Your task to perform on an android device: uninstall "Microsoft Authenticator" Image 0: 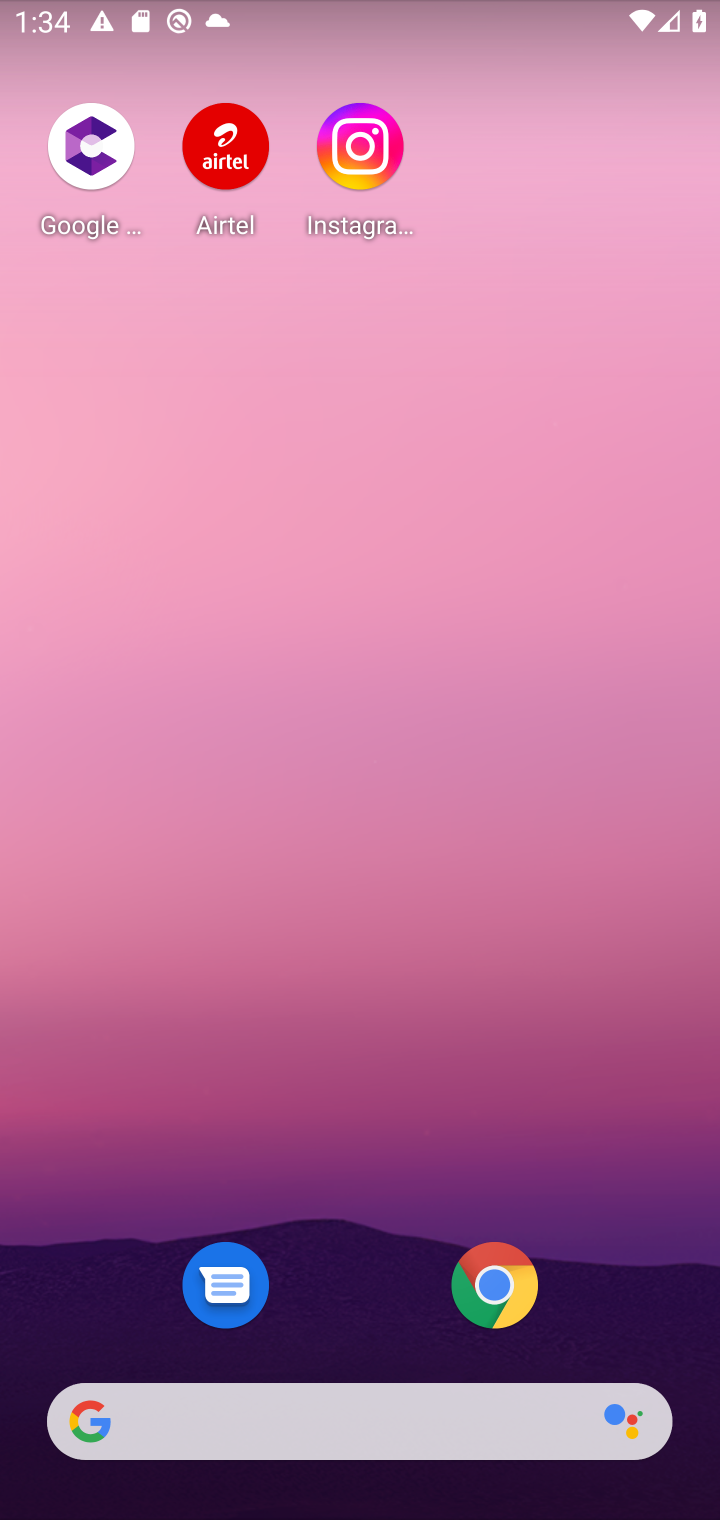
Step 0: drag from (325, 1253) to (316, 183)
Your task to perform on an android device: uninstall "Microsoft Authenticator" Image 1: 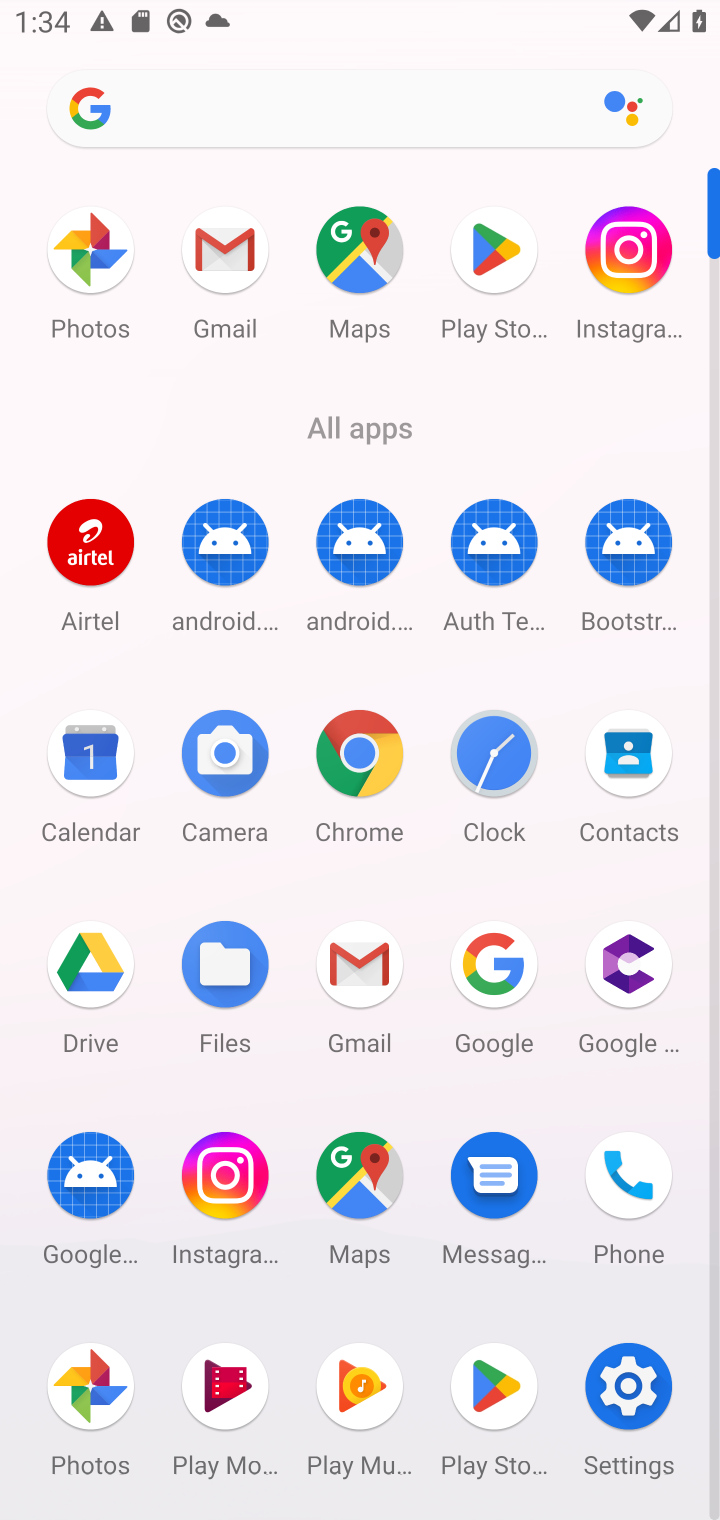
Step 1: click (496, 233)
Your task to perform on an android device: uninstall "Microsoft Authenticator" Image 2: 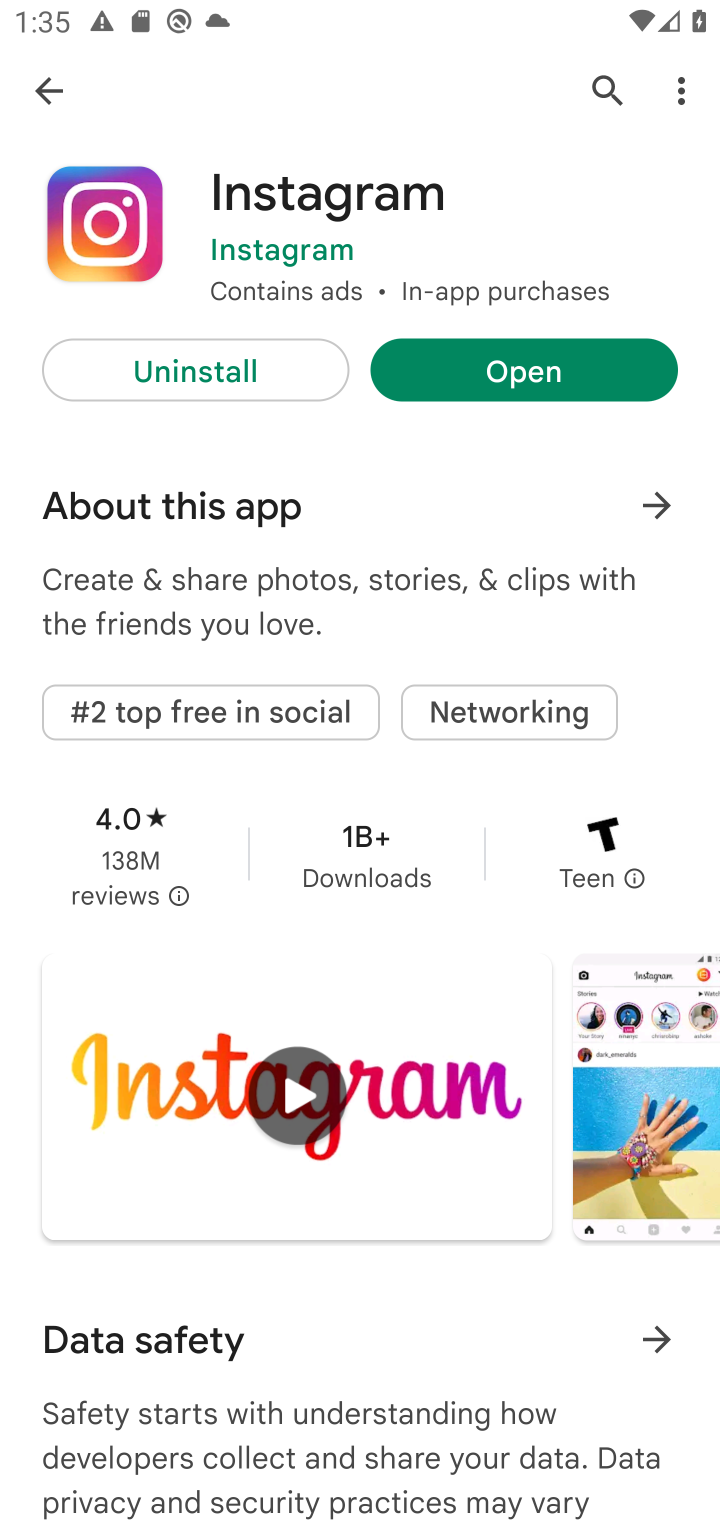
Step 2: click (62, 76)
Your task to perform on an android device: uninstall "Microsoft Authenticator" Image 3: 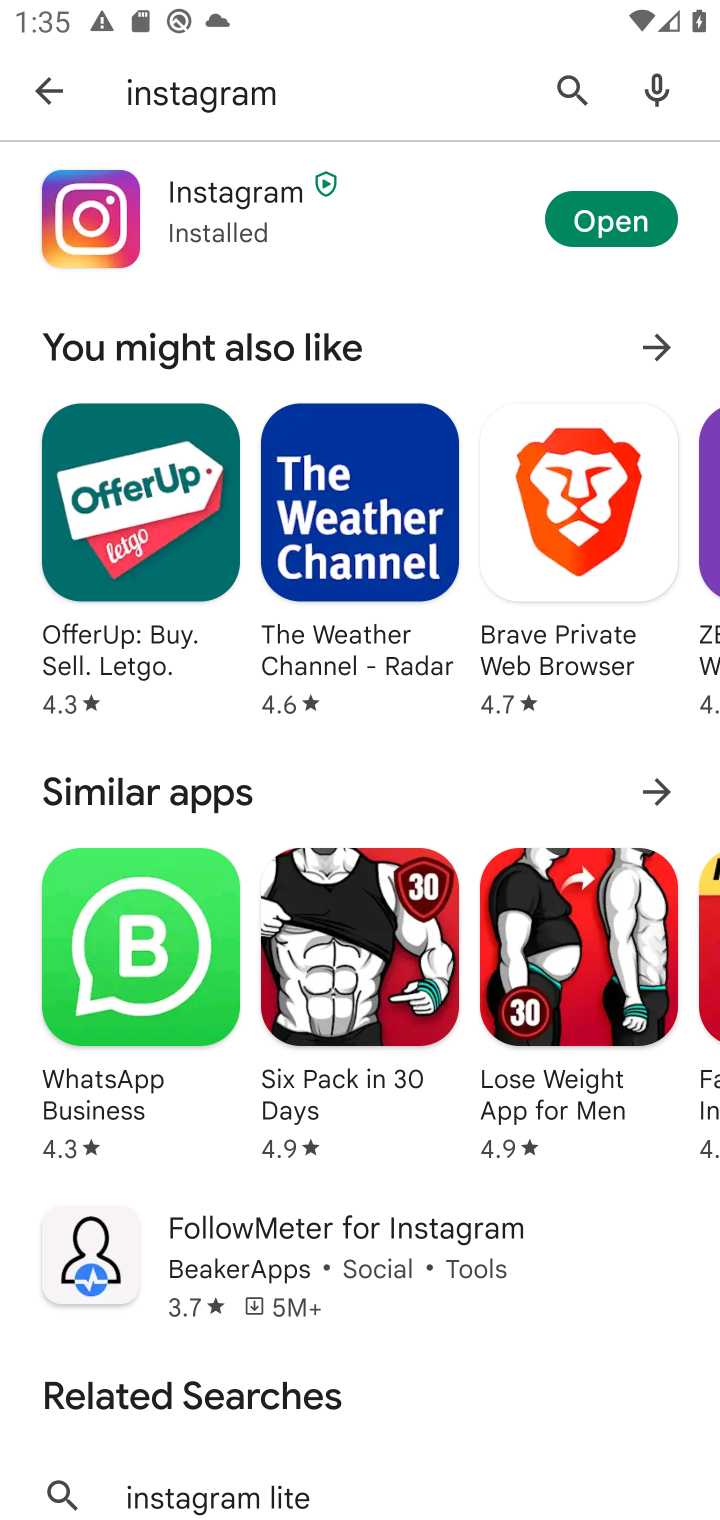
Step 3: click (60, 99)
Your task to perform on an android device: uninstall "Microsoft Authenticator" Image 4: 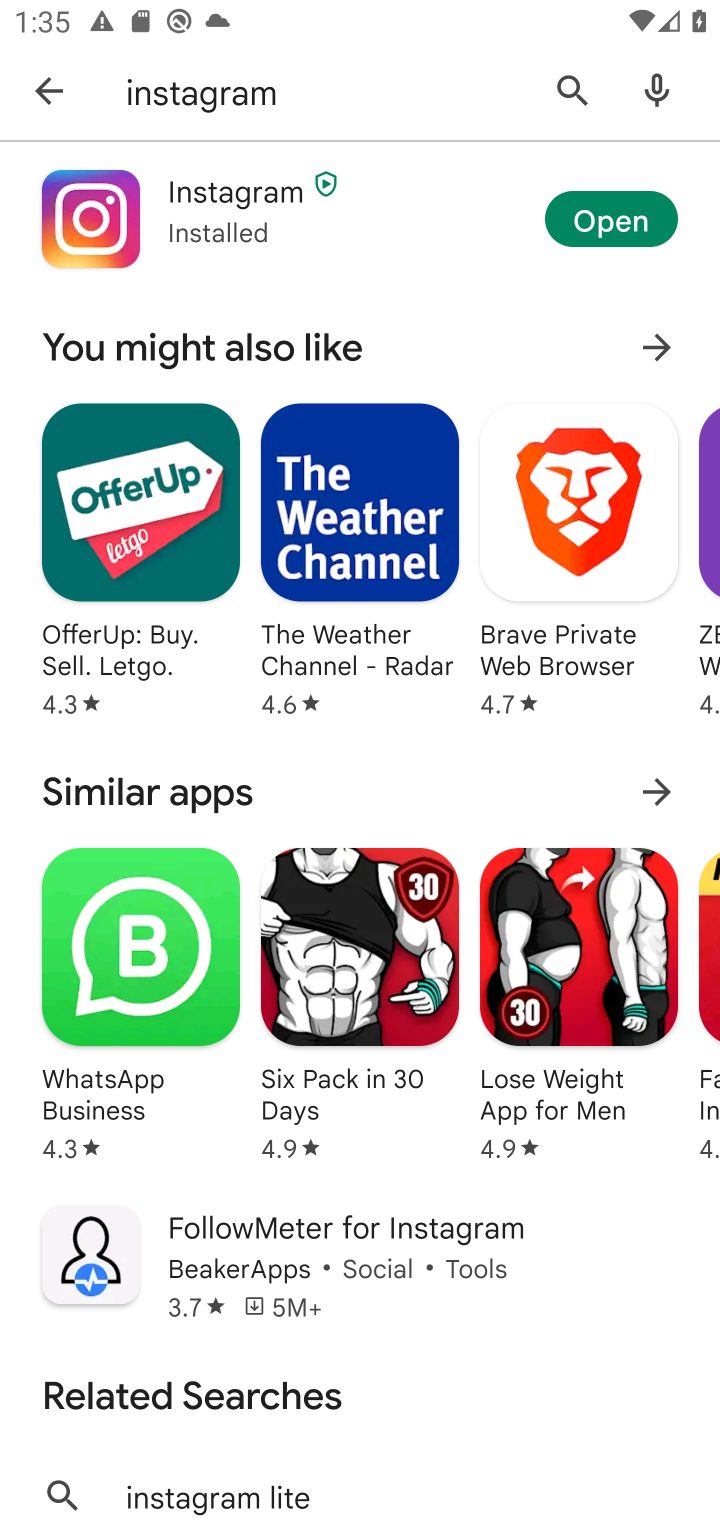
Step 4: click (49, 84)
Your task to perform on an android device: uninstall "Microsoft Authenticator" Image 5: 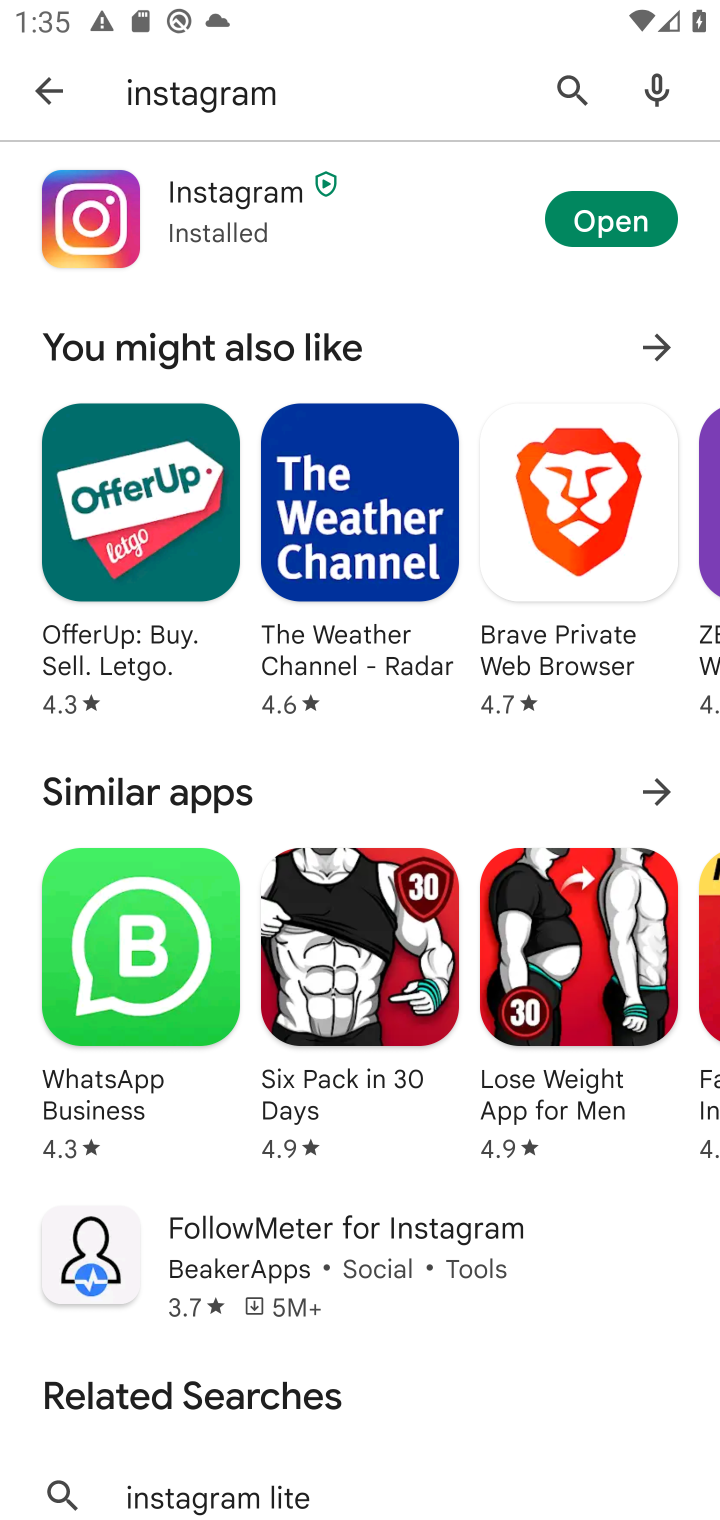
Step 5: click (566, 80)
Your task to perform on an android device: uninstall "Microsoft Authenticator" Image 6: 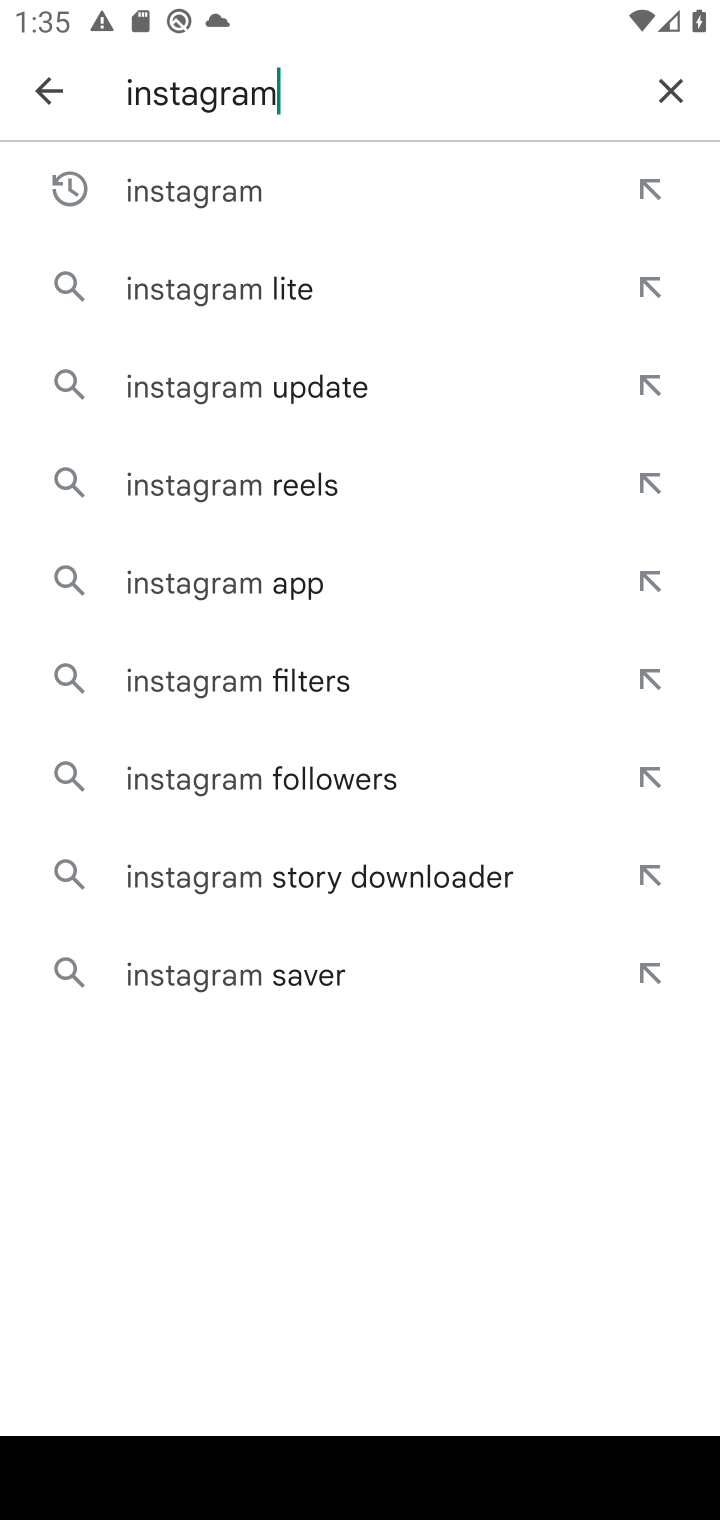
Step 6: click (678, 94)
Your task to perform on an android device: uninstall "Microsoft Authenticator" Image 7: 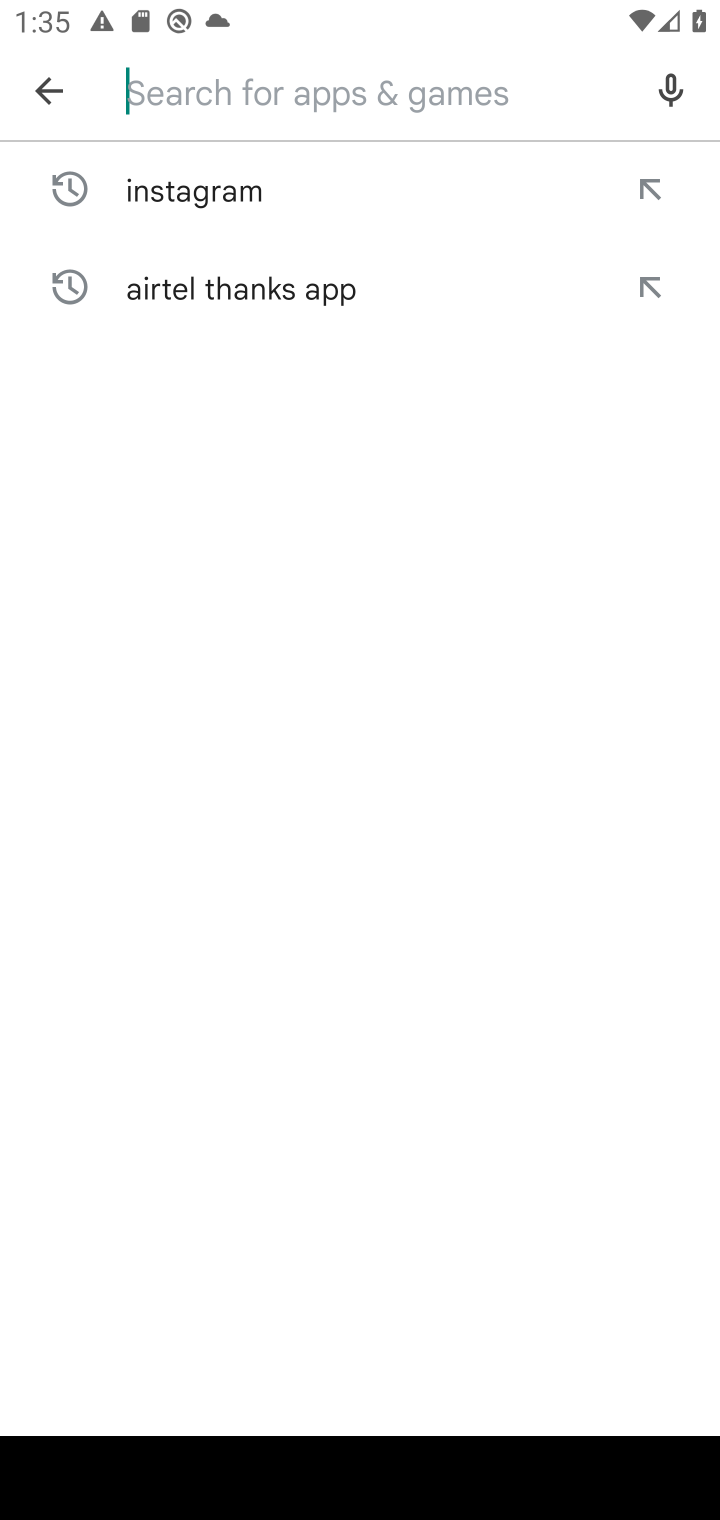
Step 7: type "Microsoft Authenticator"
Your task to perform on an android device: uninstall "Microsoft Authenticator" Image 8: 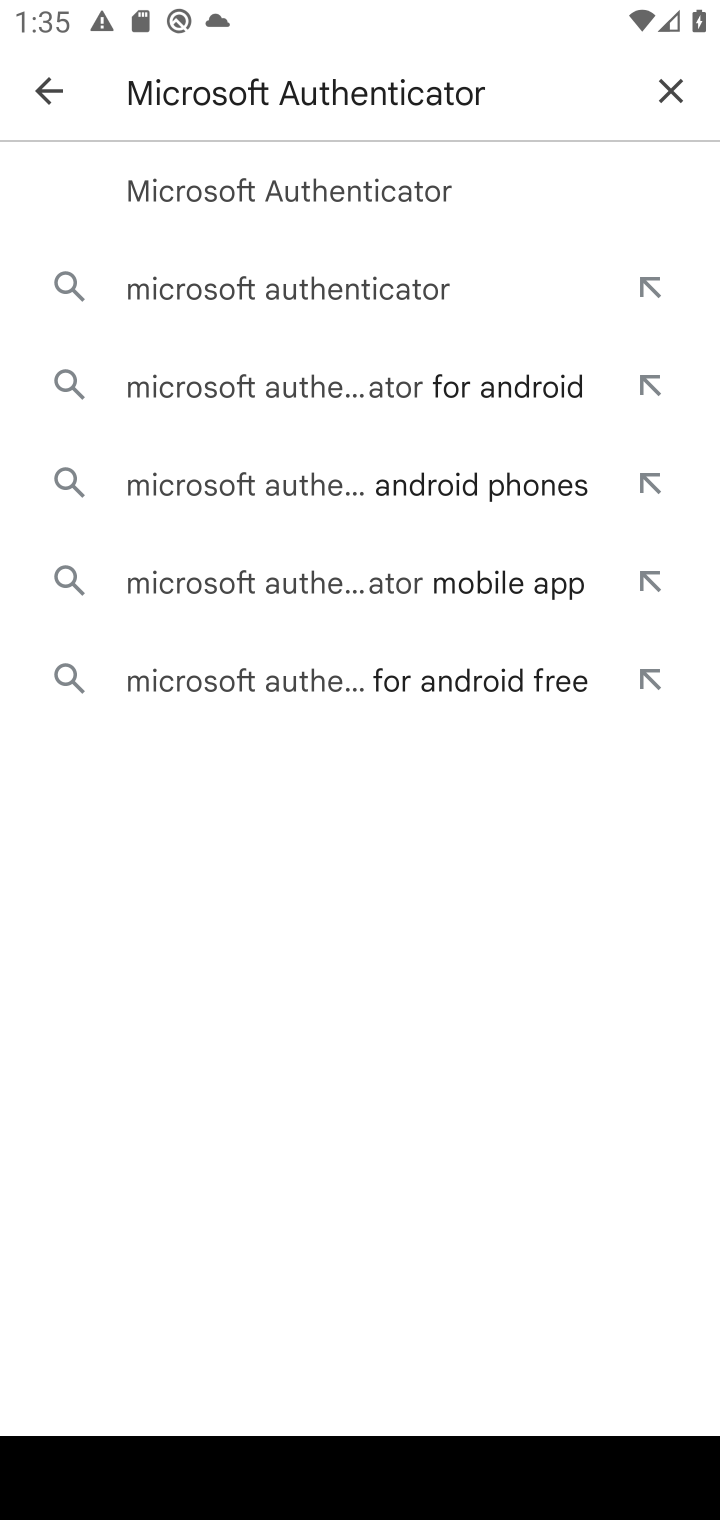
Step 8: click (168, 200)
Your task to perform on an android device: uninstall "Microsoft Authenticator" Image 9: 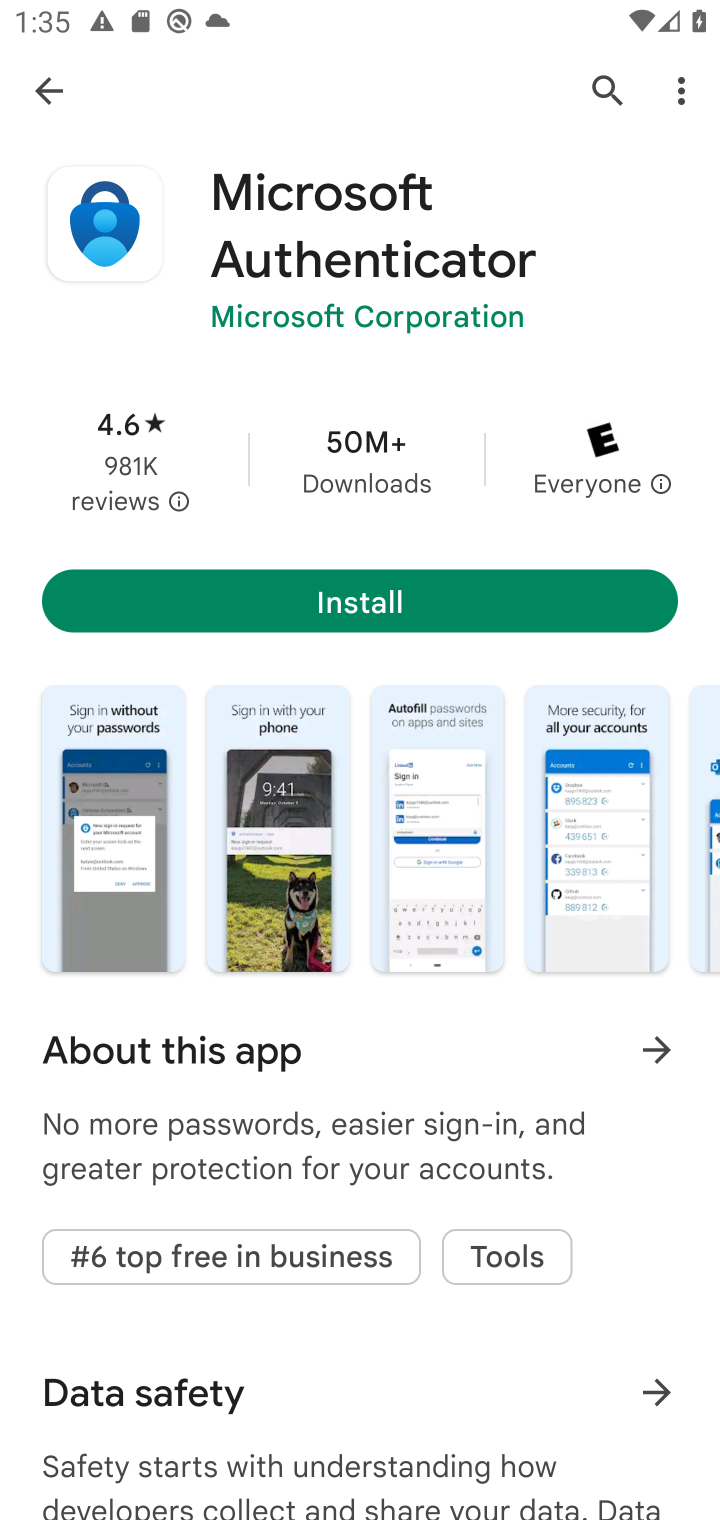
Step 9: task complete